Your task to perform on an android device: Open network settings Image 0: 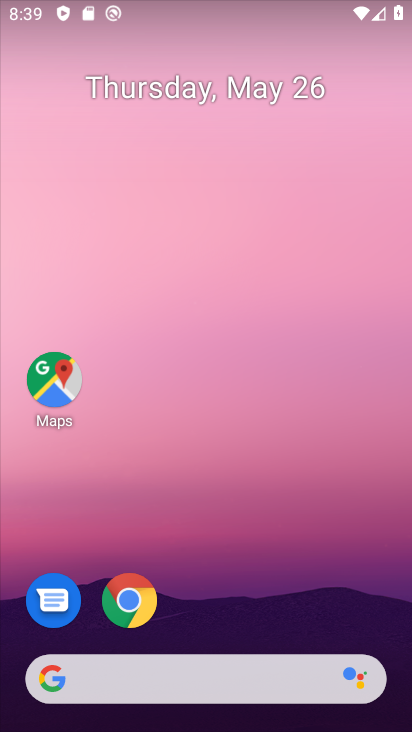
Step 0: drag from (282, 3) to (175, 724)
Your task to perform on an android device: Open network settings Image 1: 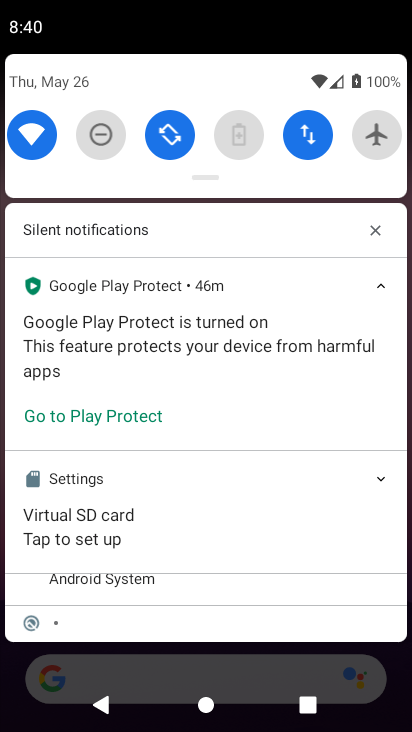
Step 1: click (316, 121)
Your task to perform on an android device: Open network settings Image 2: 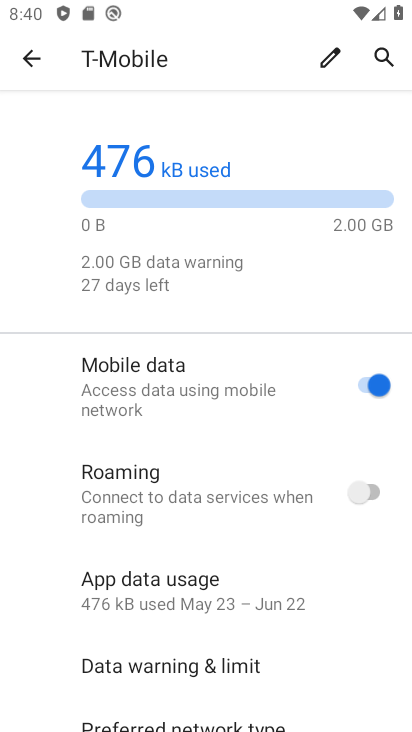
Step 2: task complete